Your task to perform on an android device: turn on location history Image 0: 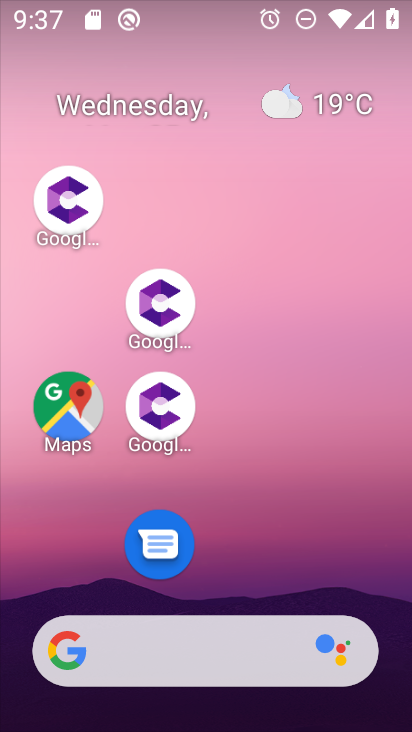
Step 0: click (71, 418)
Your task to perform on an android device: turn on location history Image 1: 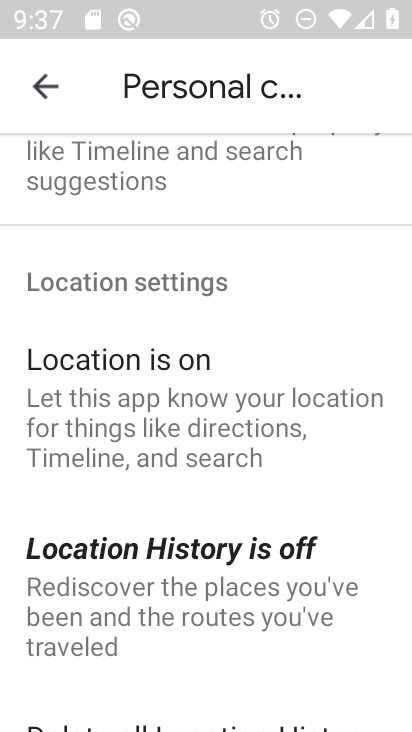
Step 1: click (169, 540)
Your task to perform on an android device: turn on location history Image 2: 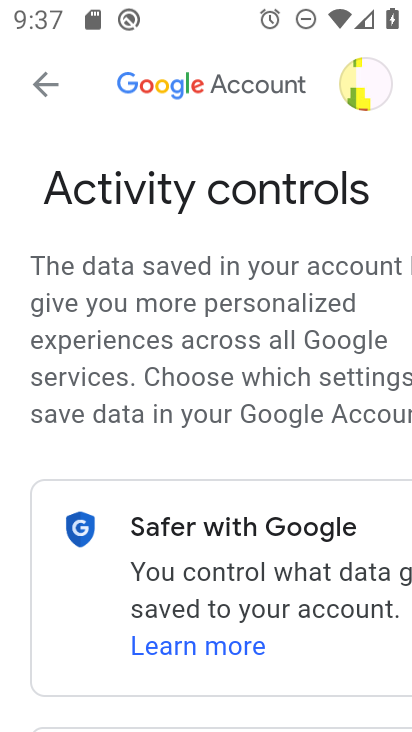
Step 2: task complete